Your task to perform on an android device: turn notification dots on Image 0: 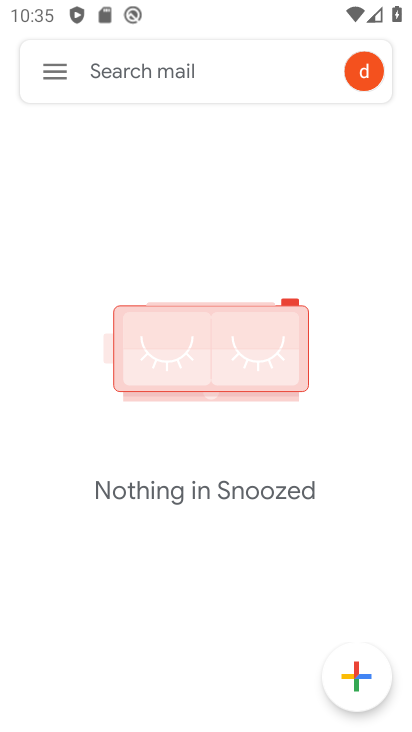
Step 0: press back button
Your task to perform on an android device: turn notification dots on Image 1: 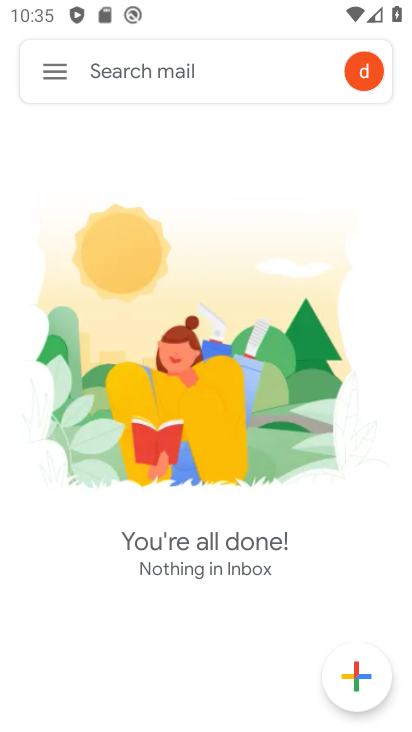
Step 1: press back button
Your task to perform on an android device: turn notification dots on Image 2: 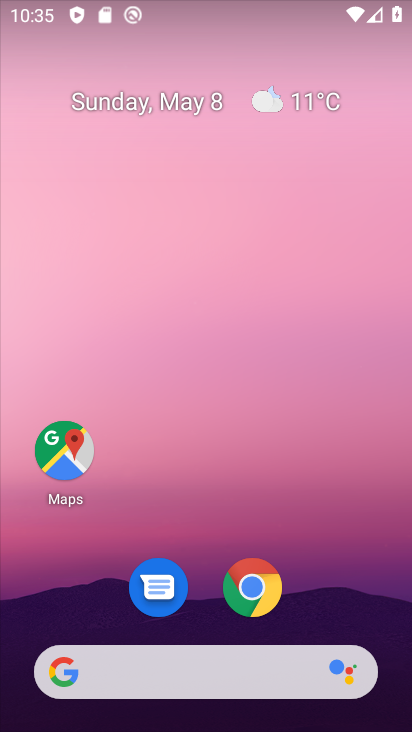
Step 2: drag from (172, 678) to (180, 116)
Your task to perform on an android device: turn notification dots on Image 3: 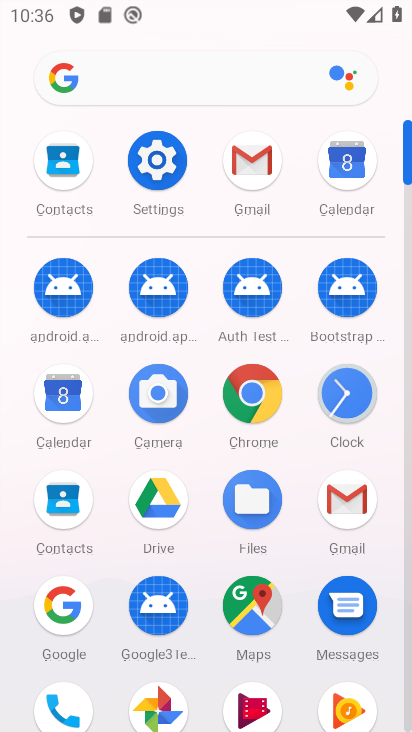
Step 3: click (175, 172)
Your task to perform on an android device: turn notification dots on Image 4: 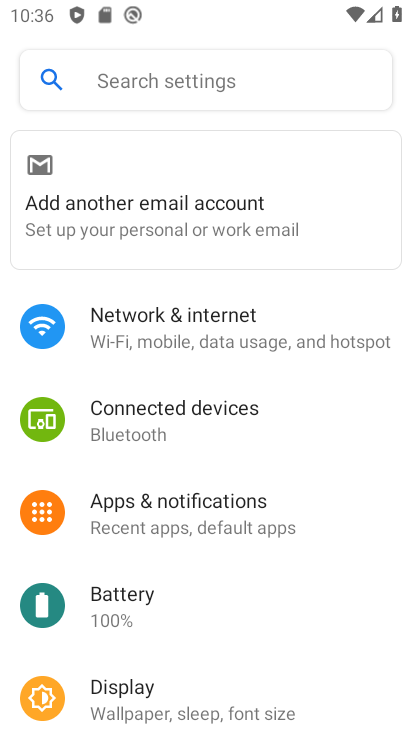
Step 4: drag from (165, 604) to (186, 325)
Your task to perform on an android device: turn notification dots on Image 5: 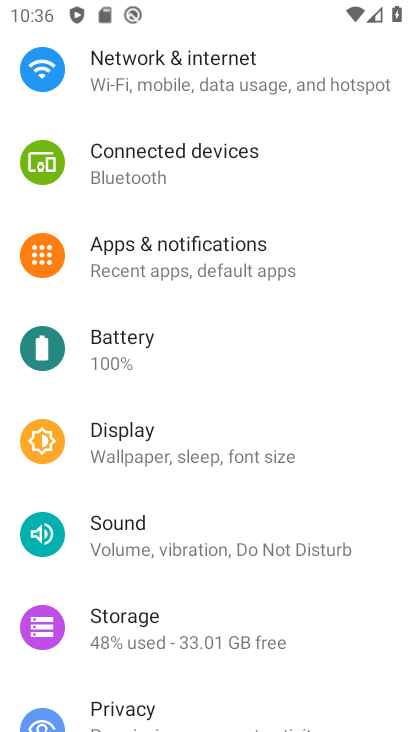
Step 5: click (181, 271)
Your task to perform on an android device: turn notification dots on Image 6: 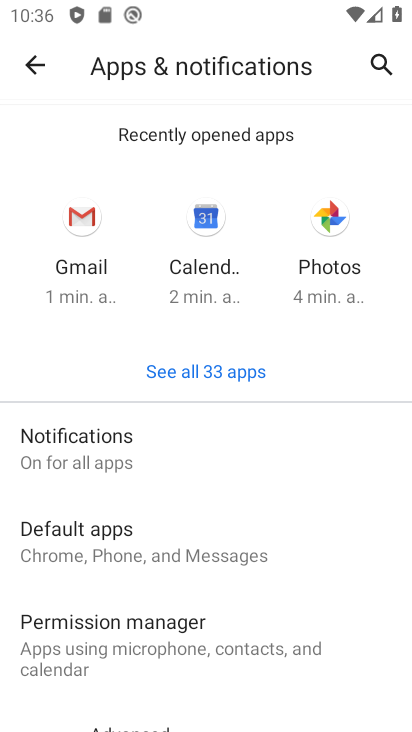
Step 6: click (137, 464)
Your task to perform on an android device: turn notification dots on Image 7: 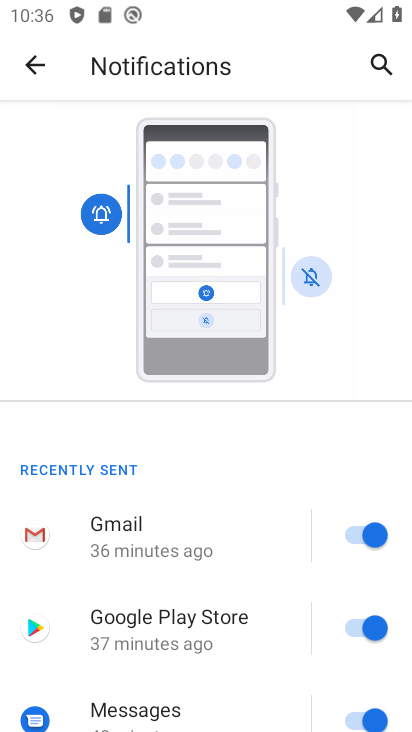
Step 7: drag from (121, 548) to (94, 40)
Your task to perform on an android device: turn notification dots on Image 8: 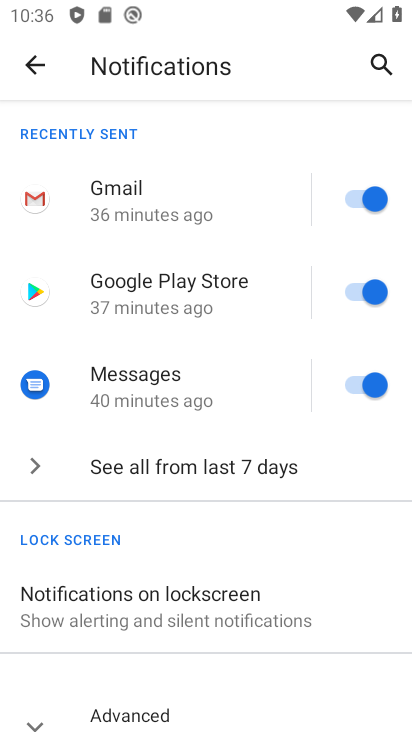
Step 8: drag from (176, 656) to (115, 18)
Your task to perform on an android device: turn notification dots on Image 9: 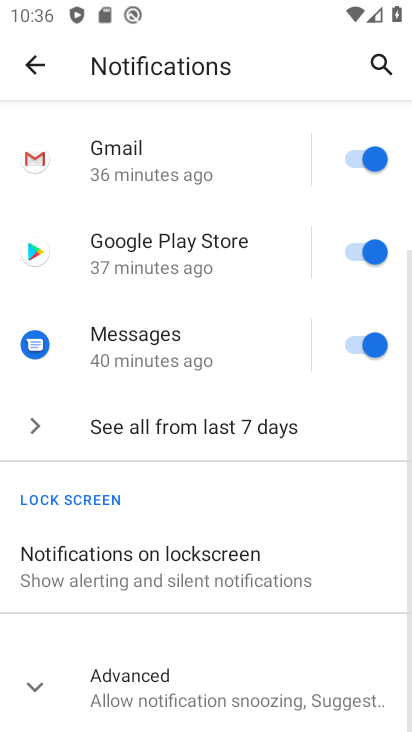
Step 9: click (212, 692)
Your task to perform on an android device: turn notification dots on Image 10: 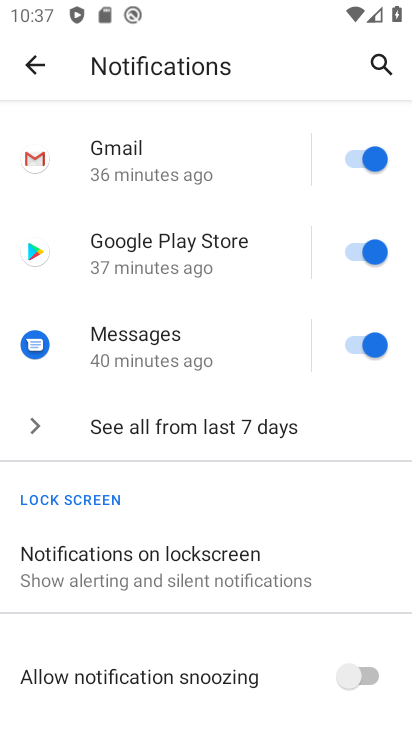
Step 10: drag from (231, 589) to (255, 66)
Your task to perform on an android device: turn notification dots on Image 11: 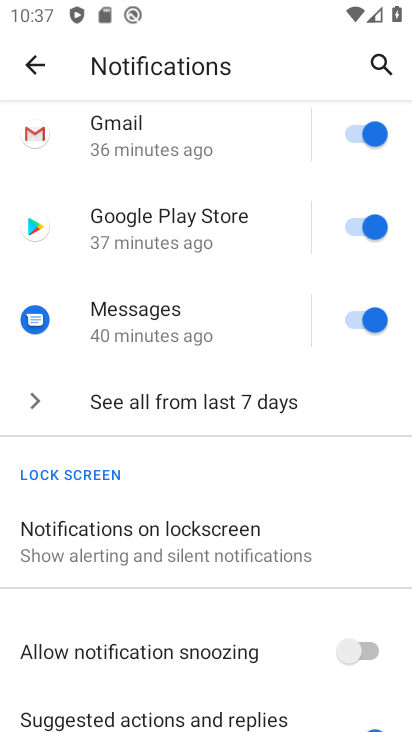
Step 11: drag from (196, 630) to (111, 27)
Your task to perform on an android device: turn notification dots on Image 12: 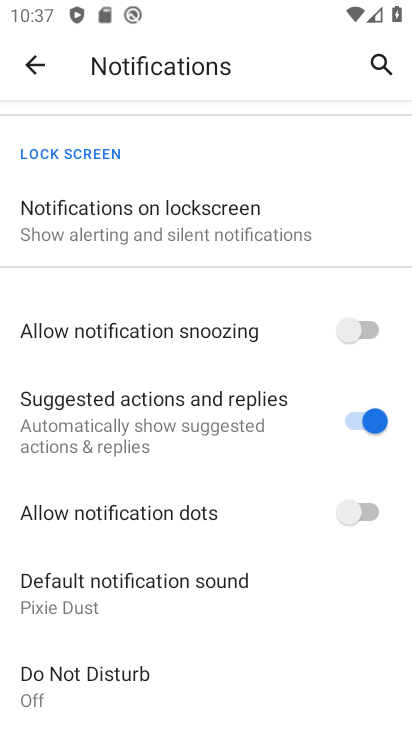
Step 12: click (372, 509)
Your task to perform on an android device: turn notification dots on Image 13: 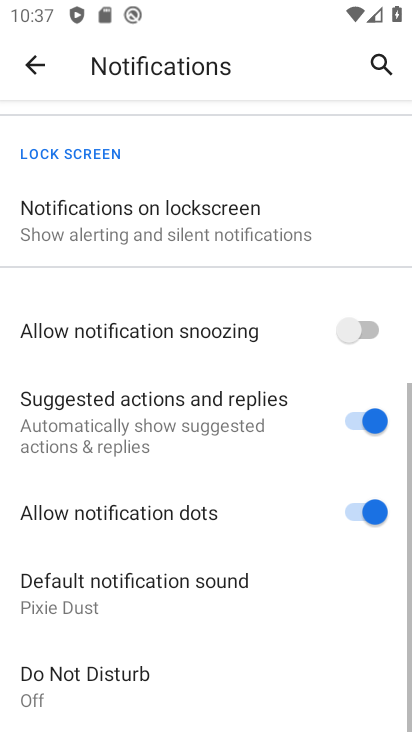
Step 13: task complete